Your task to perform on an android device: open a bookmark in the chrome app Image 0: 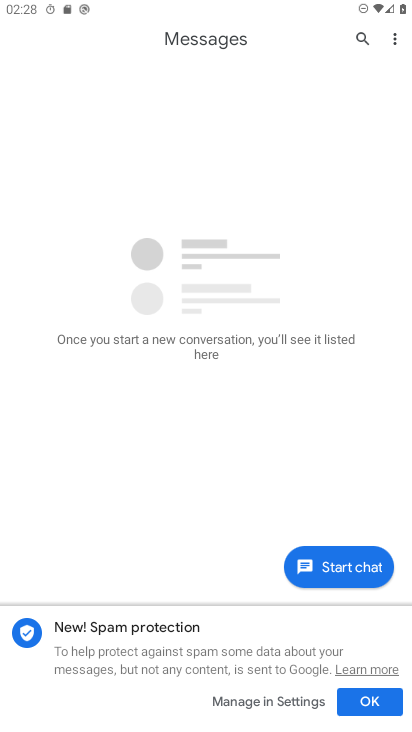
Step 0: press home button
Your task to perform on an android device: open a bookmark in the chrome app Image 1: 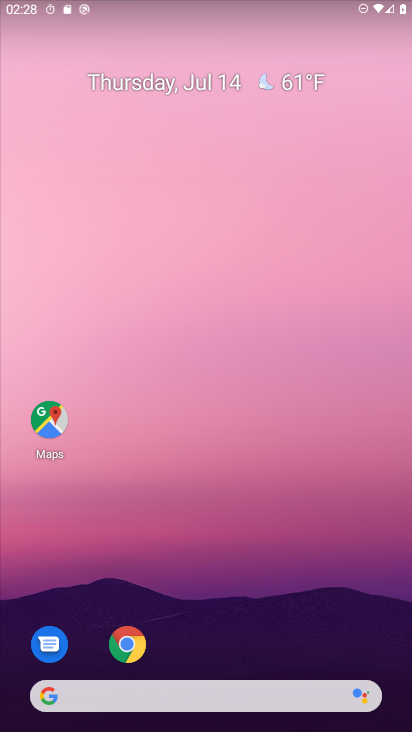
Step 1: drag from (303, 621) to (289, 152)
Your task to perform on an android device: open a bookmark in the chrome app Image 2: 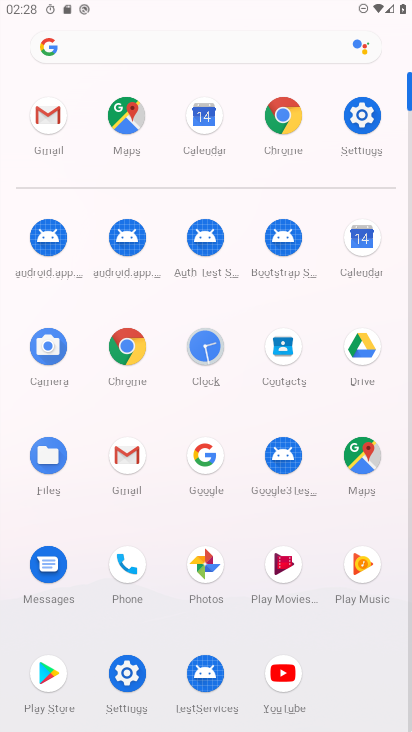
Step 2: click (290, 116)
Your task to perform on an android device: open a bookmark in the chrome app Image 3: 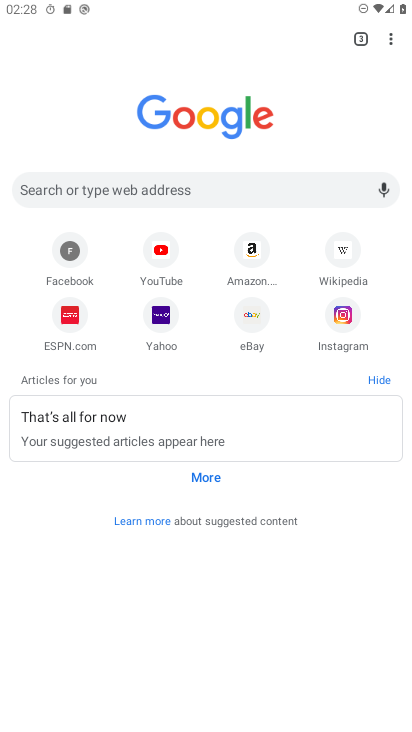
Step 3: drag from (392, 33) to (253, 216)
Your task to perform on an android device: open a bookmark in the chrome app Image 4: 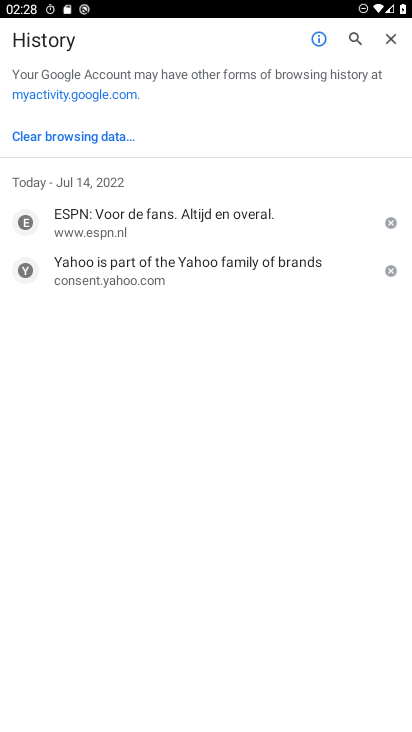
Step 4: click (104, 223)
Your task to perform on an android device: open a bookmark in the chrome app Image 5: 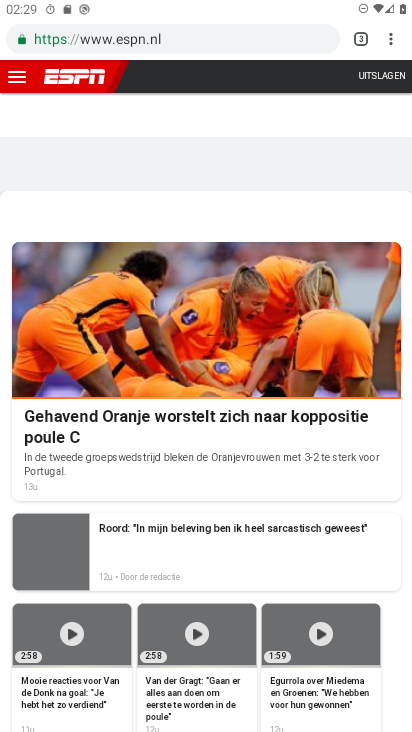
Step 5: task complete